Your task to perform on an android device: Is it going to rain this weekend? Image 0: 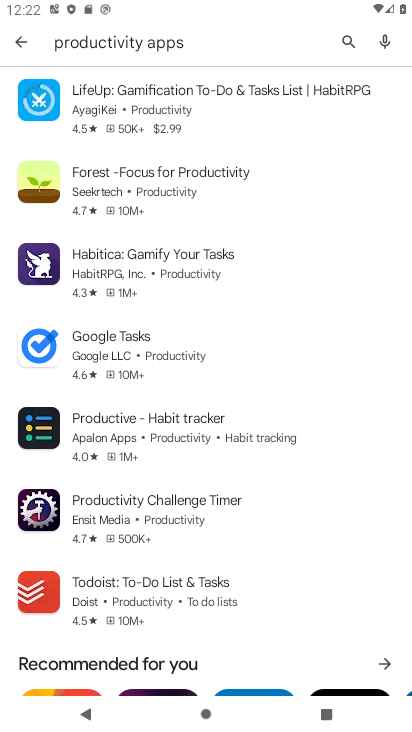
Step 0: press home button
Your task to perform on an android device: Is it going to rain this weekend? Image 1: 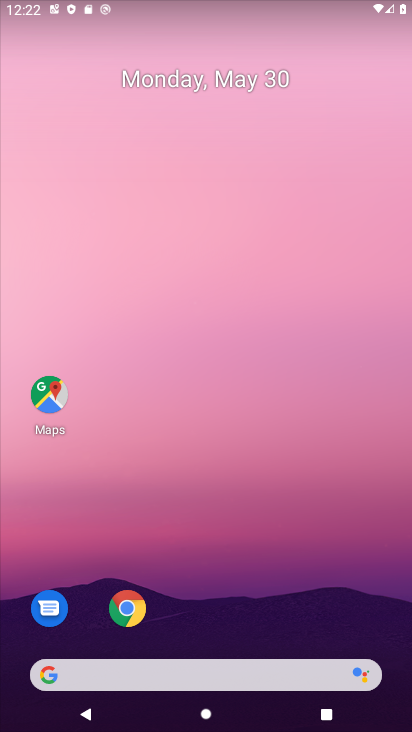
Step 1: click (180, 678)
Your task to perform on an android device: Is it going to rain this weekend? Image 2: 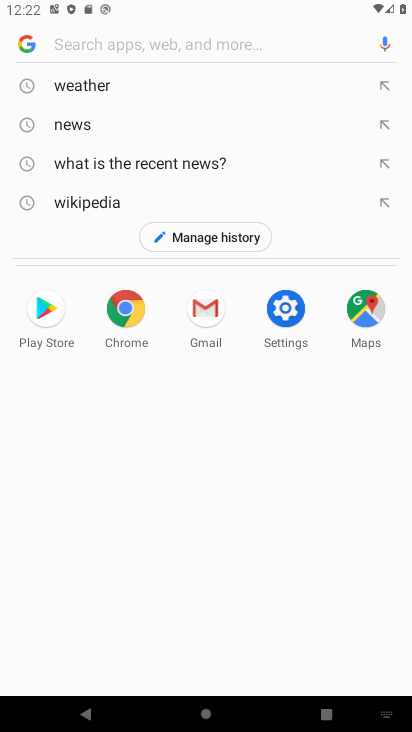
Step 2: click (157, 77)
Your task to perform on an android device: Is it going to rain this weekend? Image 3: 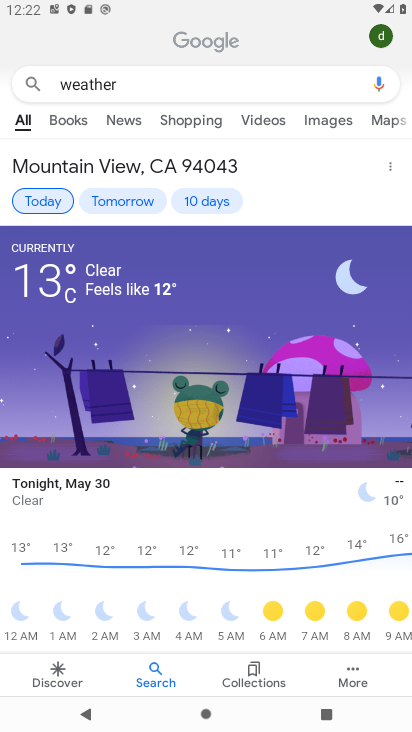
Step 3: click (187, 196)
Your task to perform on an android device: Is it going to rain this weekend? Image 4: 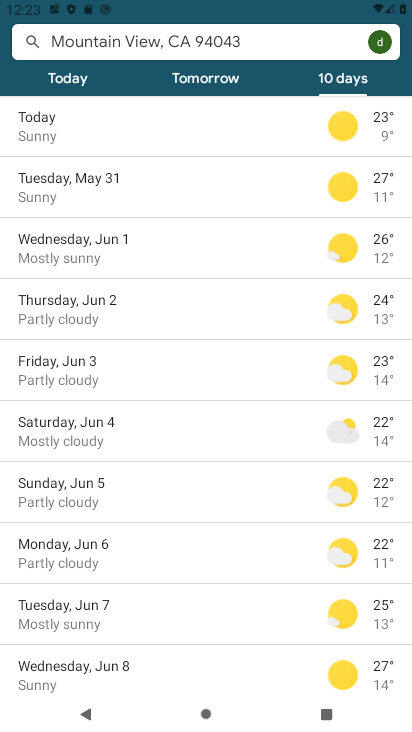
Step 4: task complete